Your task to perform on an android device: Show me productivity apps on the Play Store Image 0: 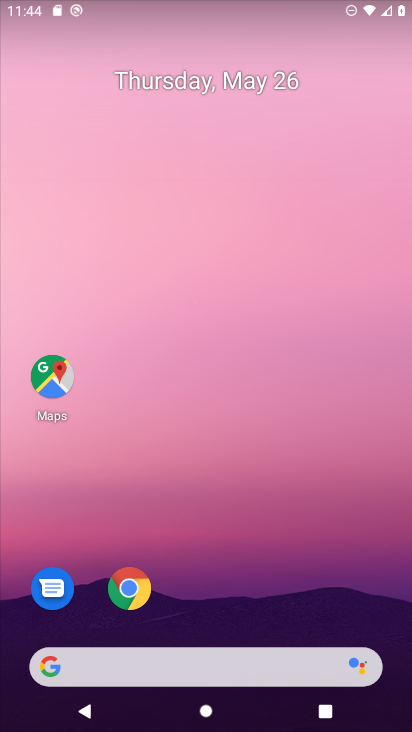
Step 0: drag from (377, 611) to (344, 10)
Your task to perform on an android device: Show me productivity apps on the Play Store Image 1: 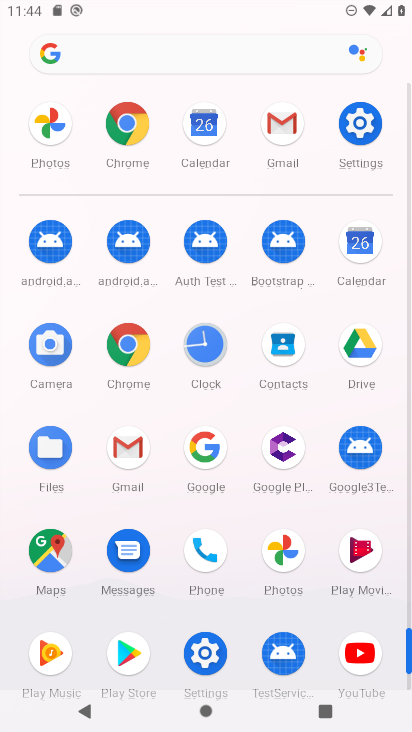
Step 1: click (138, 653)
Your task to perform on an android device: Show me productivity apps on the Play Store Image 2: 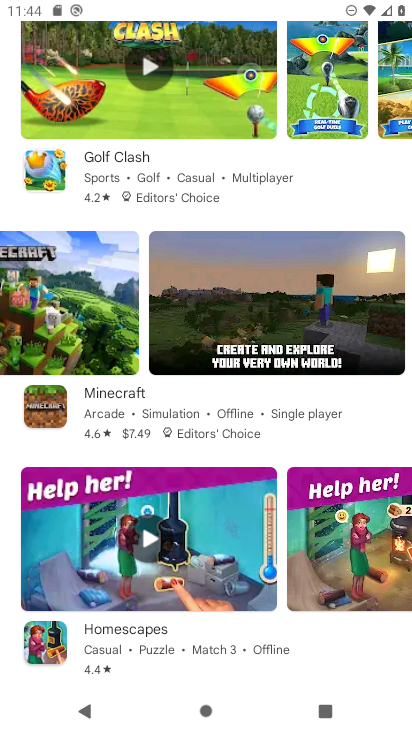
Step 2: drag from (307, 150) to (250, 527)
Your task to perform on an android device: Show me productivity apps on the Play Store Image 3: 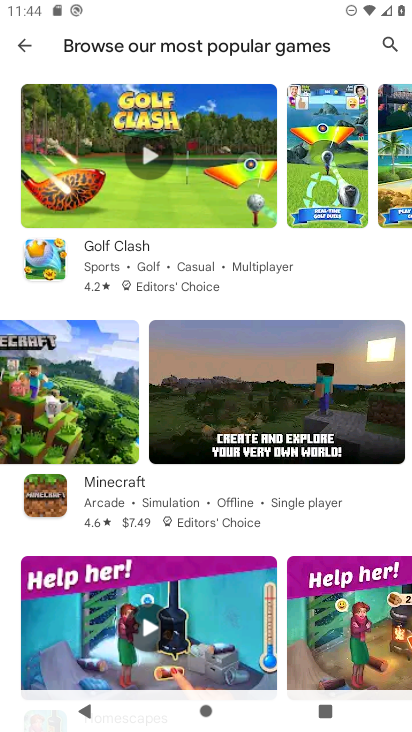
Step 3: press back button
Your task to perform on an android device: Show me productivity apps on the Play Store Image 4: 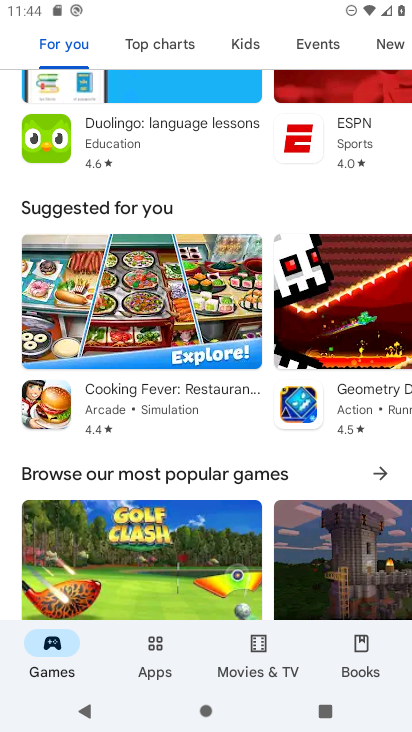
Step 4: click (161, 645)
Your task to perform on an android device: Show me productivity apps on the Play Store Image 5: 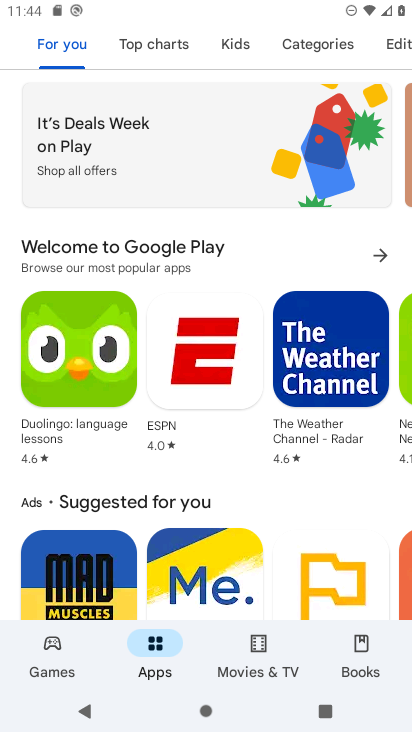
Step 5: click (312, 50)
Your task to perform on an android device: Show me productivity apps on the Play Store Image 6: 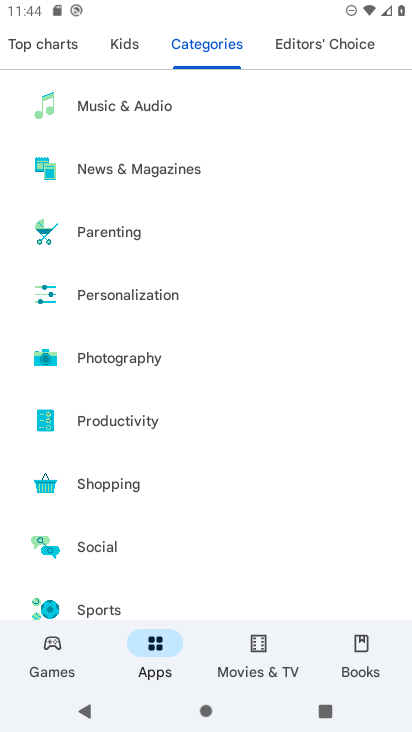
Step 6: click (130, 415)
Your task to perform on an android device: Show me productivity apps on the Play Store Image 7: 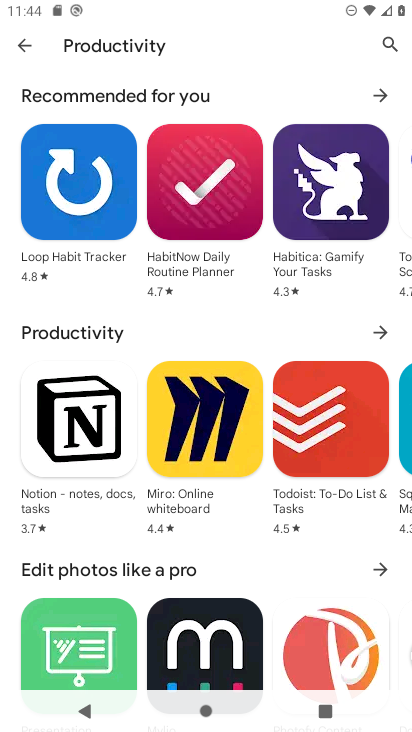
Step 7: click (377, 326)
Your task to perform on an android device: Show me productivity apps on the Play Store Image 8: 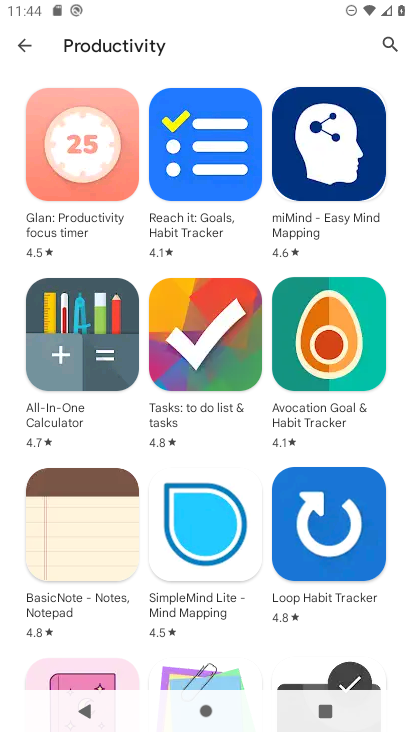
Step 8: task complete